Your task to perform on an android device: What is the news today? Image 0: 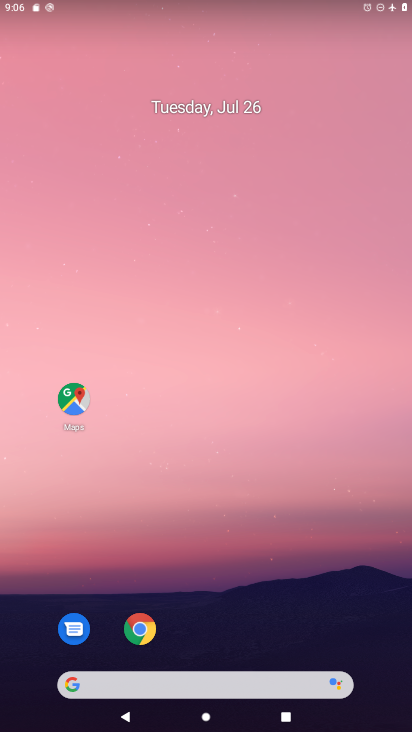
Step 0: click (170, 670)
Your task to perform on an android device: What is the news today? Image 1: 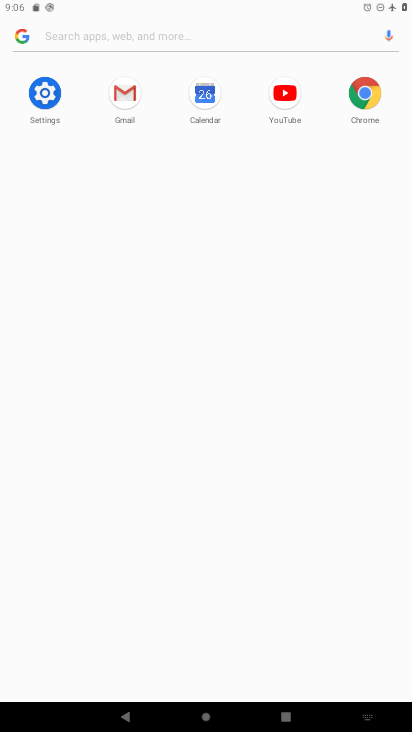
Step 1: type "news today"
Your task to perform on an android device: What is the news today? Image 2: 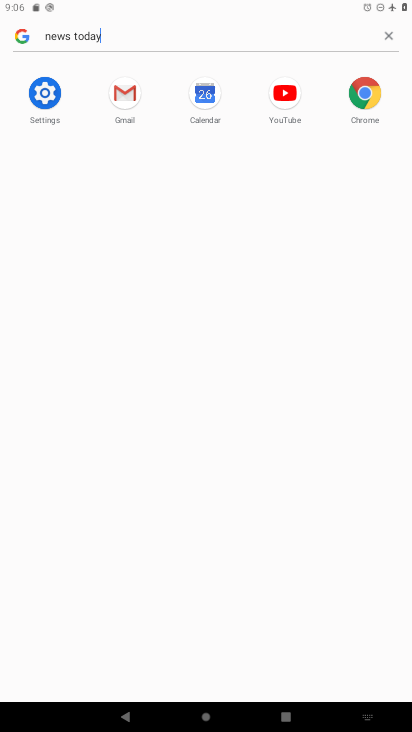
Step 2: type ""
Your task to perform on an android device: What is the news today? Image 3: 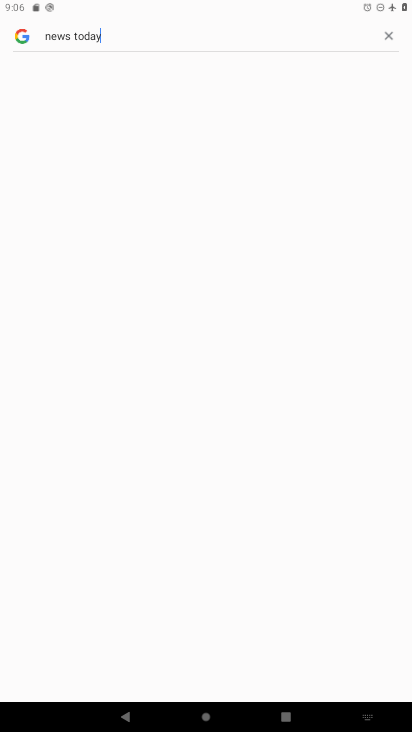
Step 3: task complete